Your task to perform on an android device: see tabs open on other devices in the chrome app Image 0: 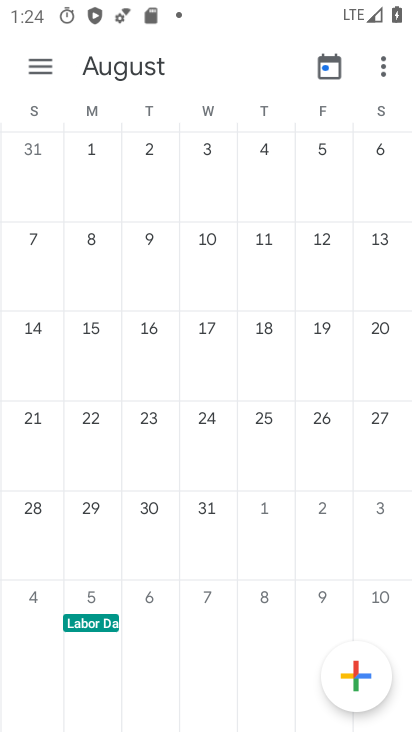
Step 0: press home button
Your task to perform on an android device: see tabs open on other devices in the chrome app Image 1: 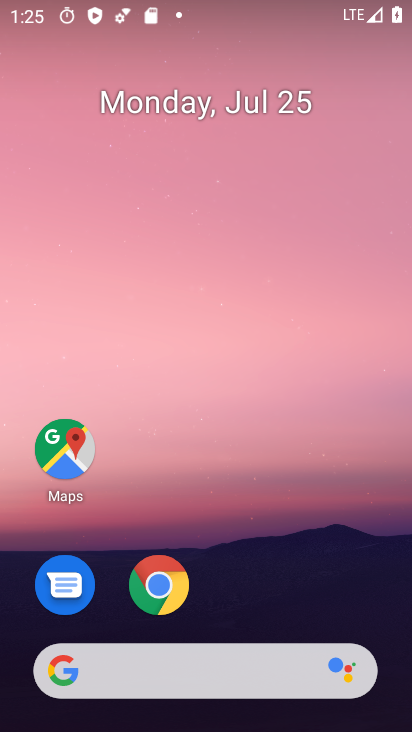
Step 1: drag from (240, 659) to (216, 98)
Your task to perform on an android device: see tabs open on other devices in the chrome app Image 2: 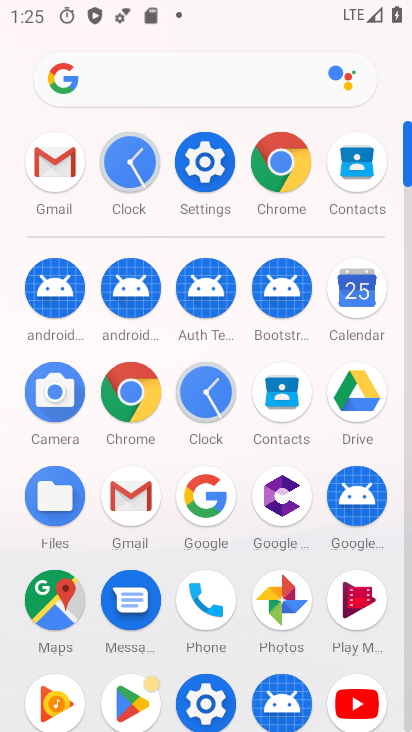
Step 2: click (121, 411)
Your task to perform on an android device: see tabs open on other devices in the chrome app Image 3: 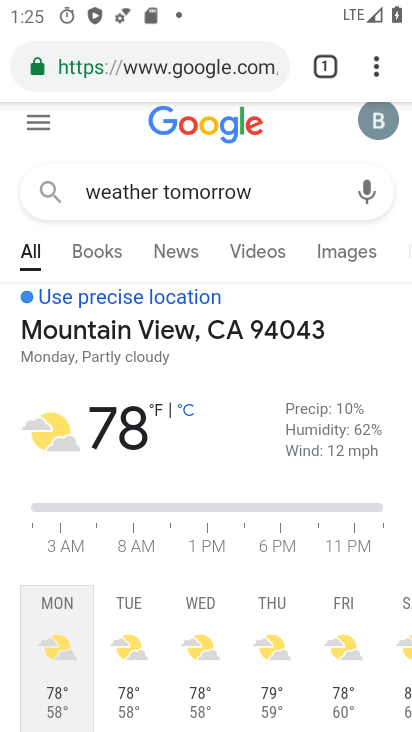
Step 3: task complete